Your task to perform on an android device: Go to Reddit.com Image 0: 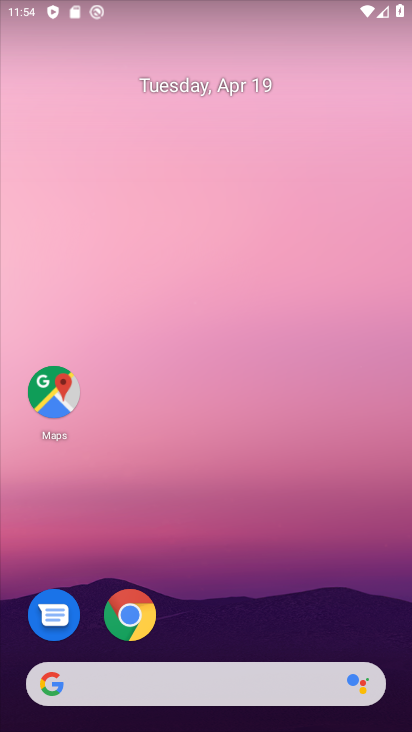
Step 0: drag from (263, 442) to (248, 174)
Your task to perform on an android device: Go to Reddit.com Image 1: 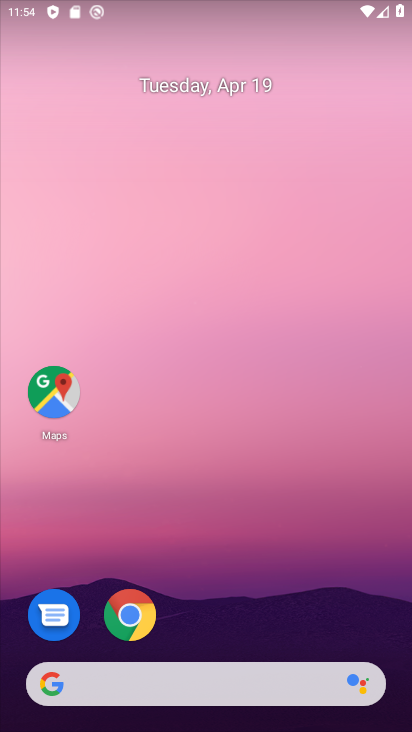
Step 1: drag from (208, 608) to (246, 99)
Your task to perform on an android device: Go to Reddit.com Image 2: 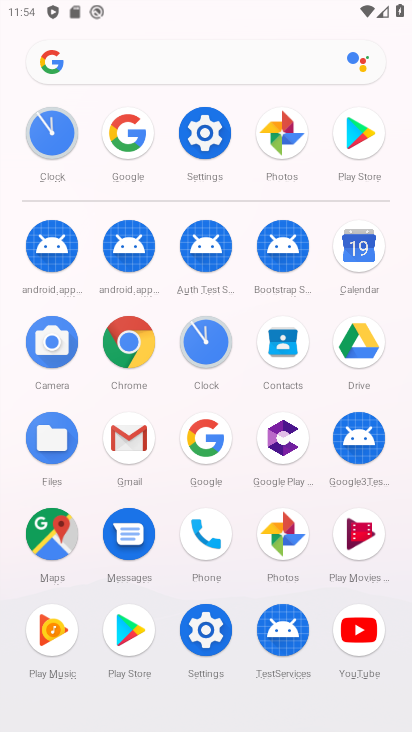
Step 2: click (130, 138)
Your task to perform on an android device: Go to Reddit.com Image 3: 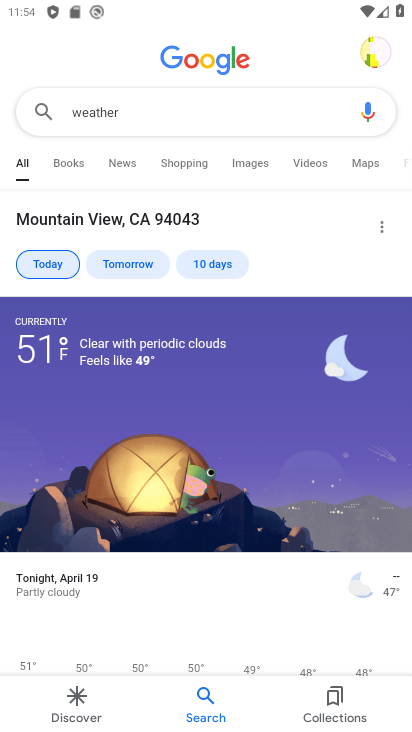
Step 3: click (200, 113)
Your task to perform on an android device: Go to Reddit.com Image 4: 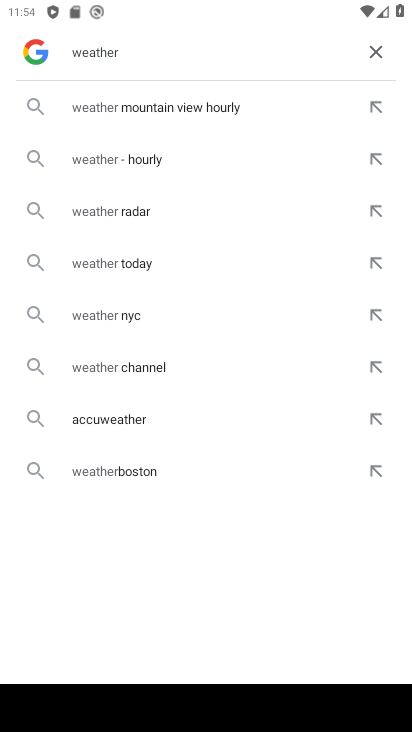
Step 4: click (376, 46)
Your task to perform on an android device: Go to Reddit.com Image 5: 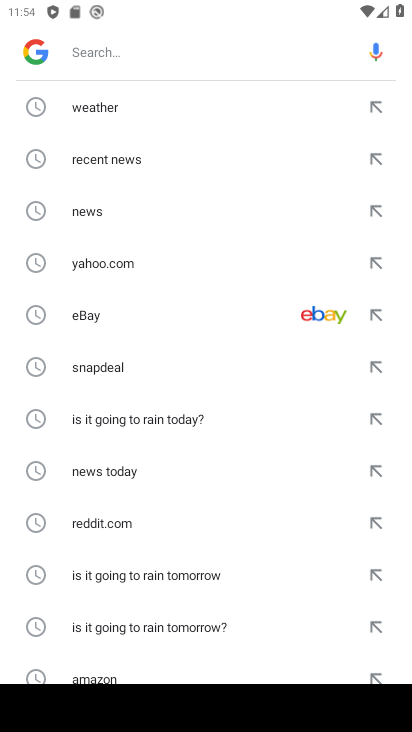
Step 5: click (117, 524)
Your task to perform on an android device: Go to Reddit.com Image 6: 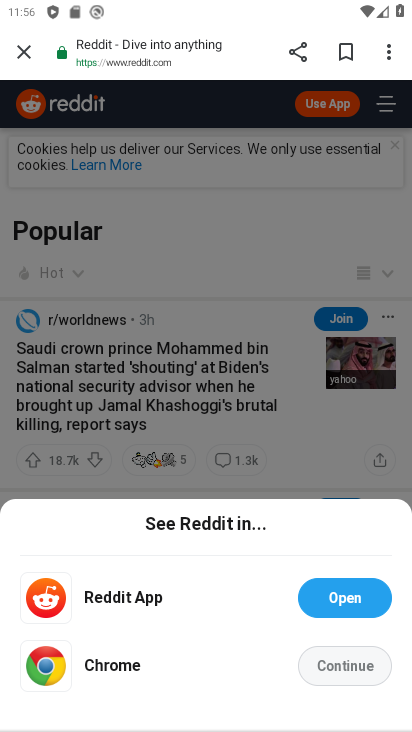
Step 6: task complete